Your task to perform on an android device: turn on notifications settings in the gmail app Image 0: 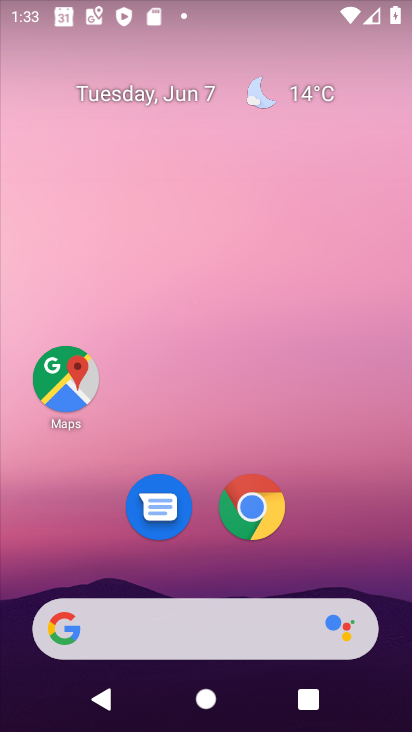
Step 0: drag from (395, 612) to (324, 117)
Your task to perform on an android device: turn on notifications settings in the gmail app Image 1: 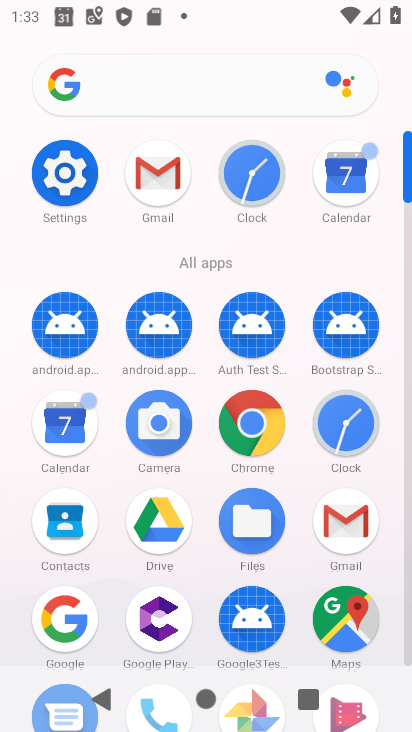
Step 1: click (408, 647)
Your task to perform on an android device: turn on notifications settings in the gmail app Image 2: 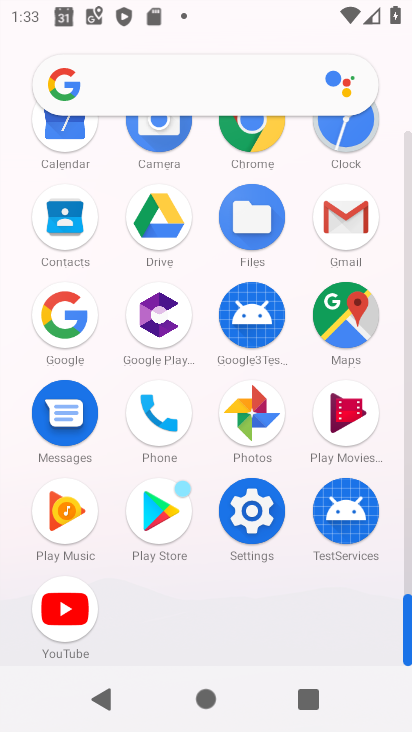
Step 2: click (348, 219)
Your task to perform on an android device: turn on notifications settings in the gmail app Image 3: 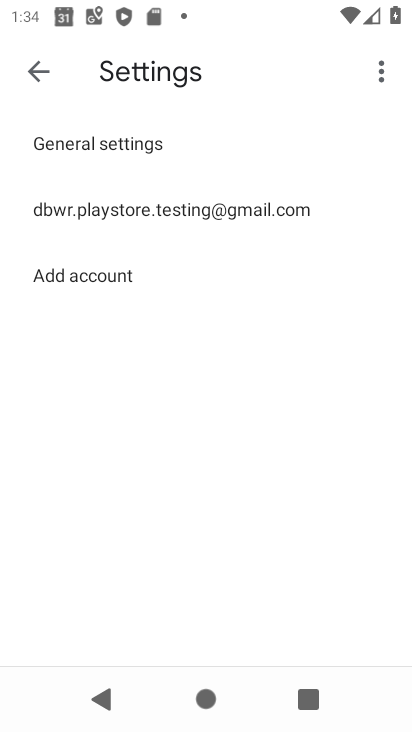
Step 3: click (83, 214)
Your task to perform on an android device: turn on notifications settings in the gmail app Image 4: 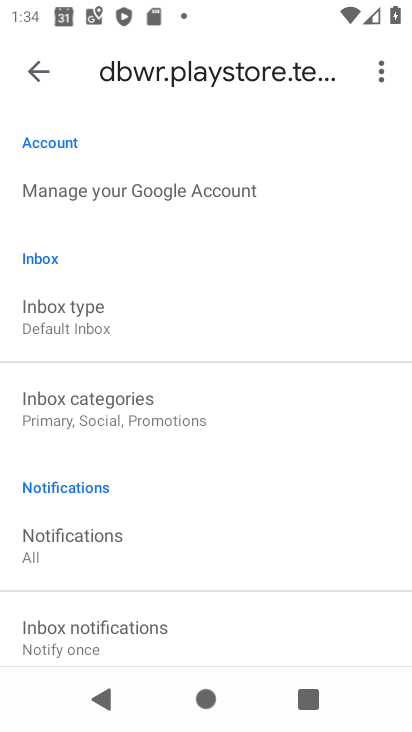
Step 4: drag from (230, 575) to (274, 240)
Your task to perform on an android device: turn on notifications settings in the gmail app Image 5: 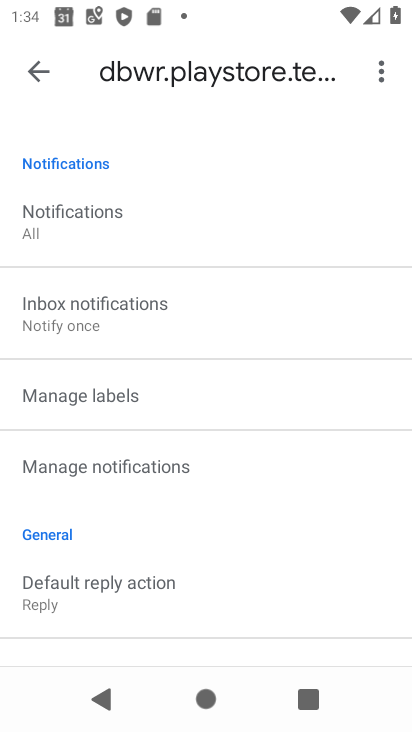
Step 5: click (119, 462)
Your task to perform on an android device: turn on notifications settings in the gmail app Image 6: 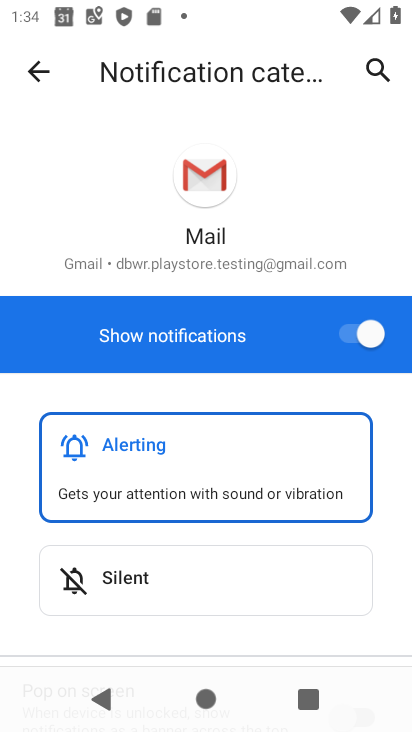
Step 6: task complete